Your task to perform on an android device: check storage Image 0: 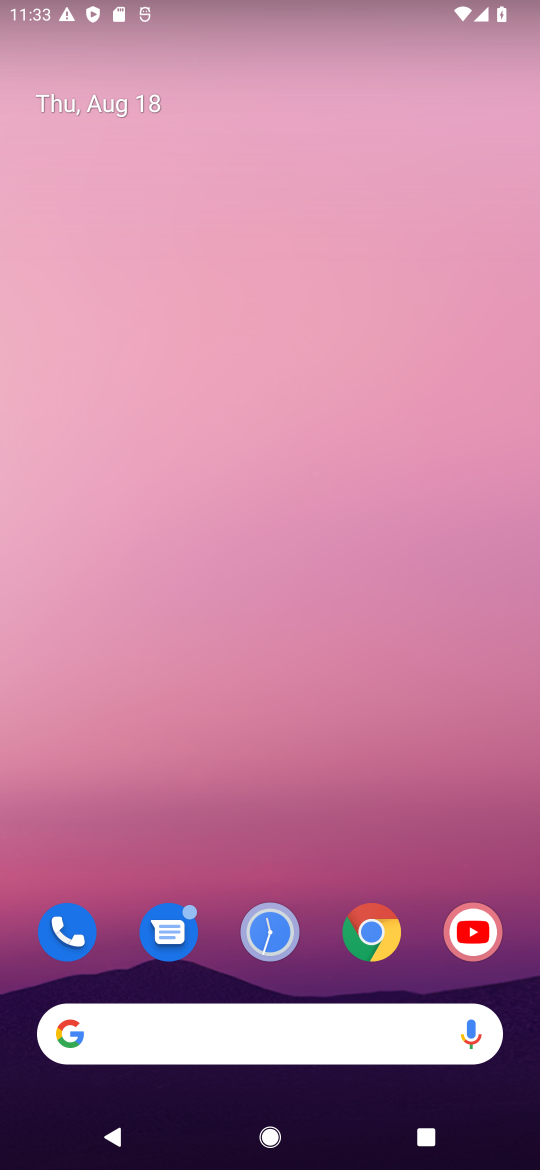
Step 0: drag from (218, 1096) to (163, 347)
Your task to perform on an android device: check storage Image 1: 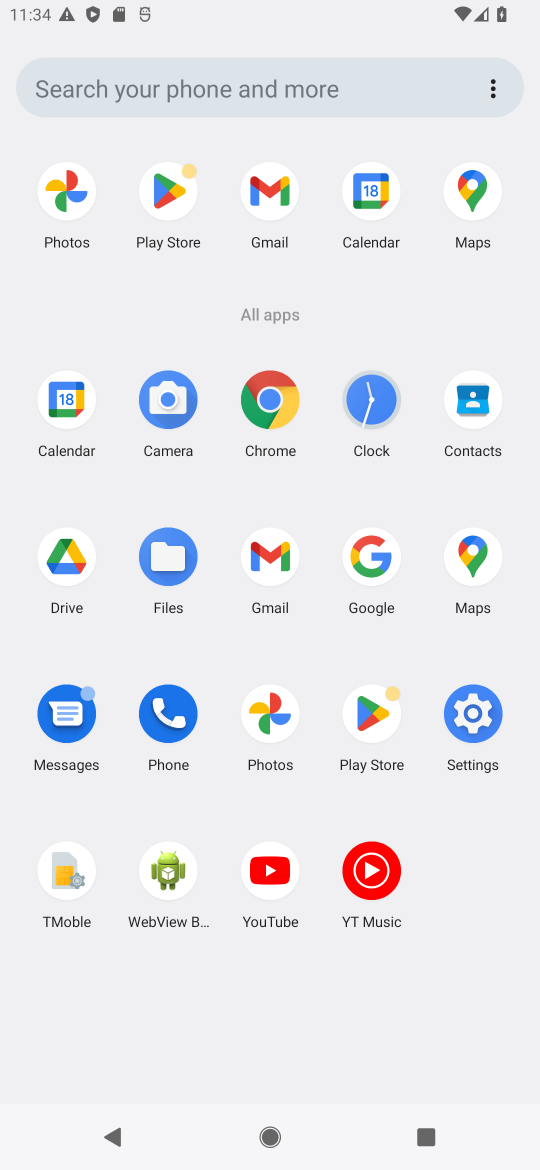
Step 1: click (475, 715)
Your task to perform on an android device: check storage Image 2: 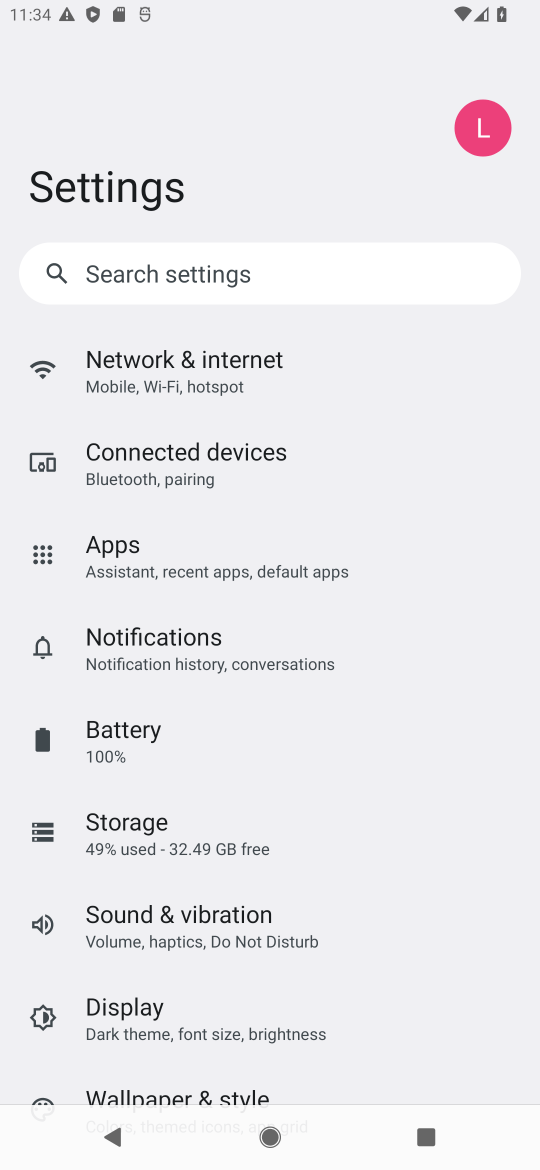
Step 2: click (113, 833)
Your task to perform on an android device: check storage Image 3: 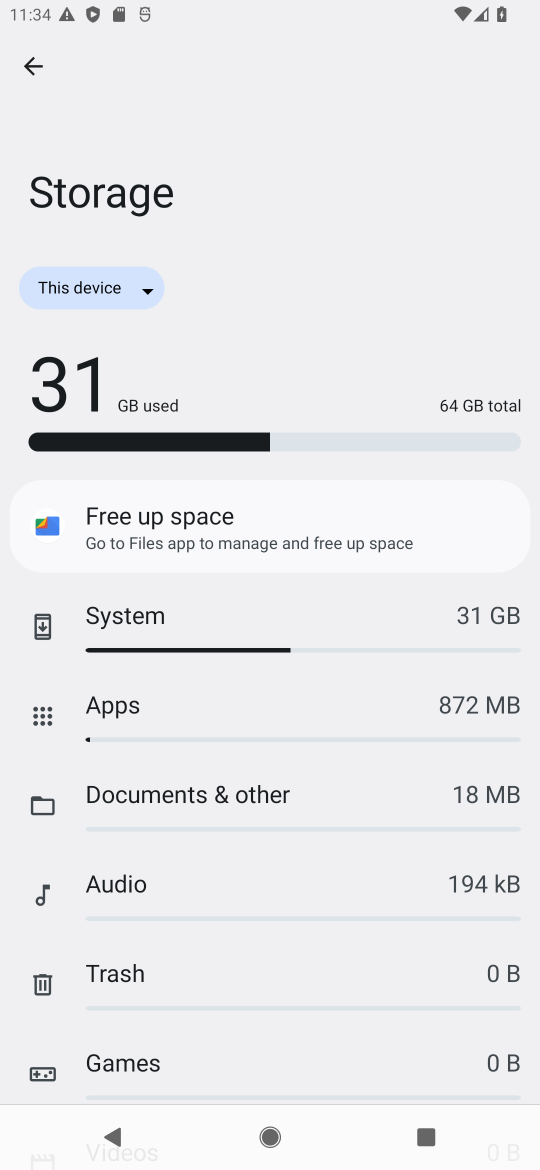
Step 3: click (205, 739)
Your task to perform on an android device: check storage Image 4: 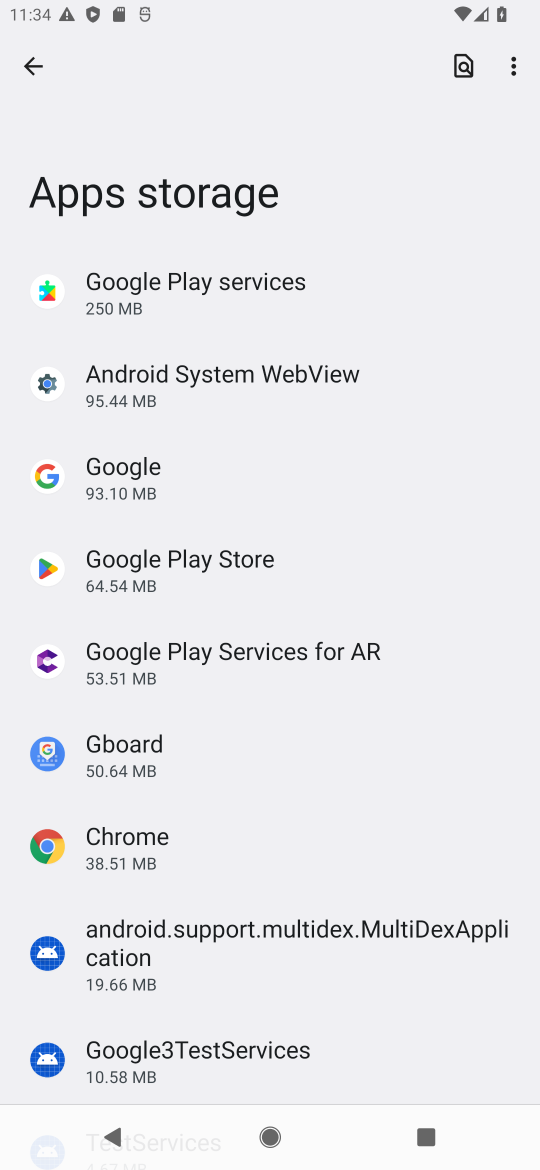
Step 4: task complete